Your task to perform on an android device: Search for flights from Boston to Zurich Image 0: 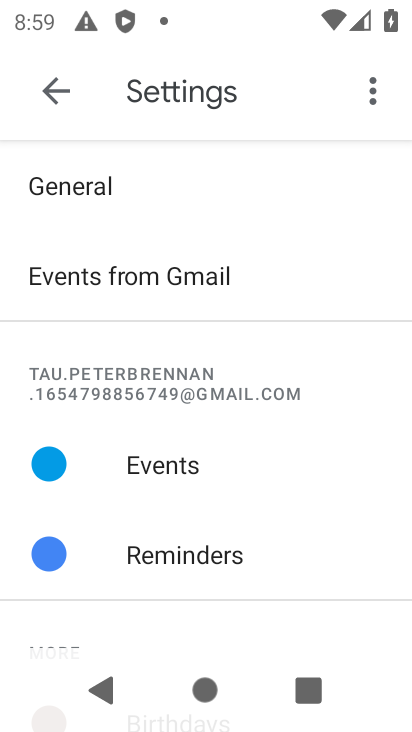
Step 0: press home button
Your task to perform on an android device: Search for flights from Boston to Zurich Image 1: 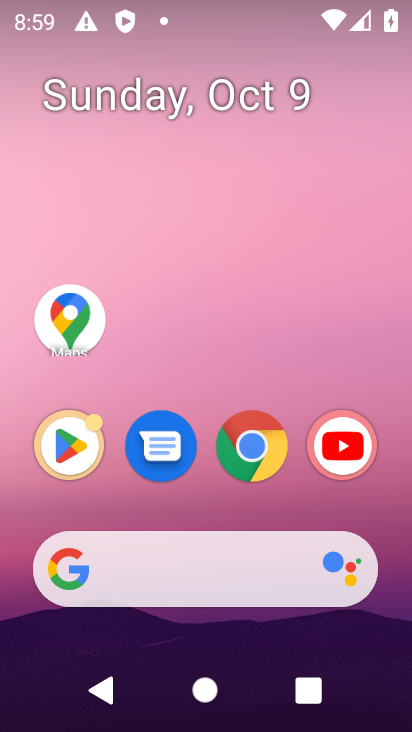
Step 1: click (253, 444)
Your task to perform on an android device: Search for flights from Boston to Zurich Image 2: 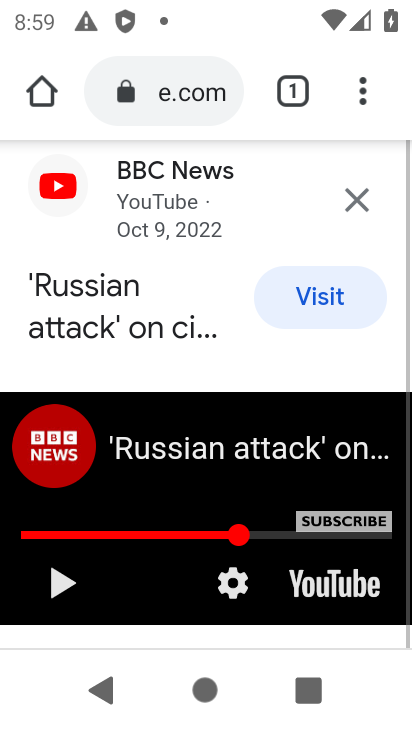
Step 2: click (185, 98)
Your task to perform on an android device: Search for flights from Boston to Zurich Image 3: 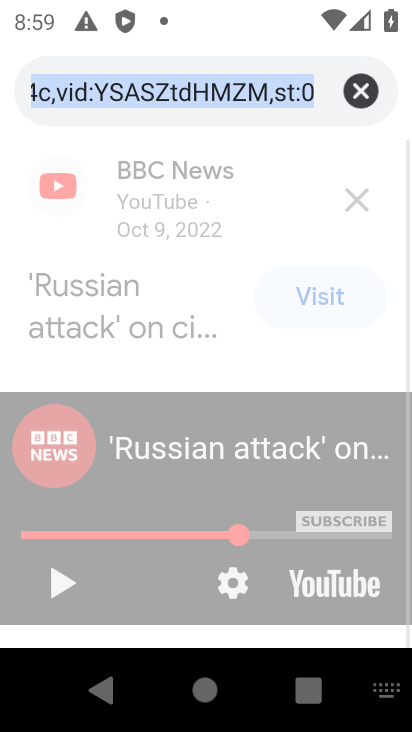
Step 3: type "flights from Boston to Zurich"
Your task to perform on an android device: Search for flights from Boston to Zurich Image 4: 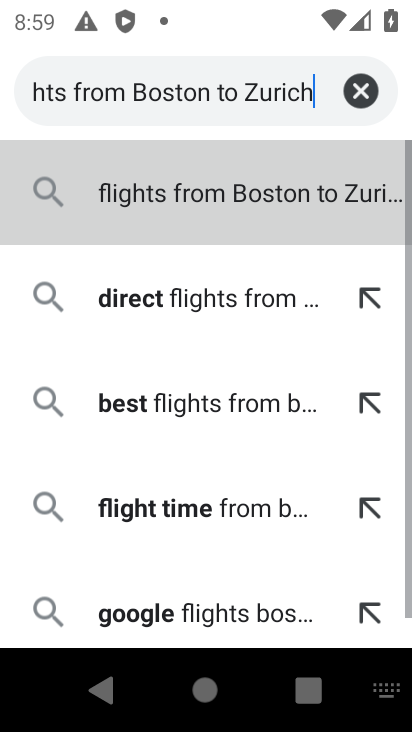
Step 4: type ""
Your task to perform on an android device: Search for flights from Boston to Zurich Image 5: 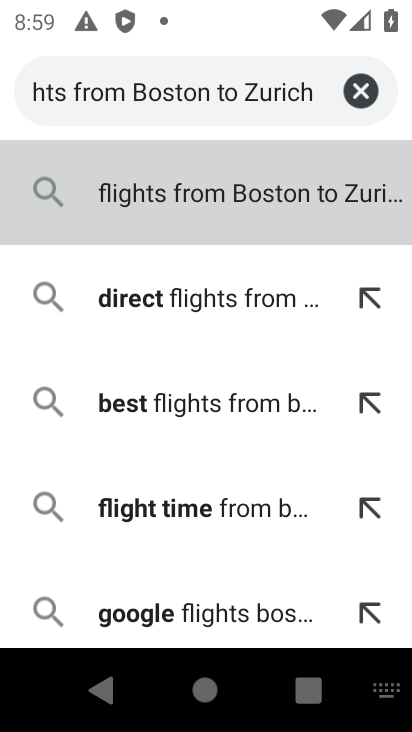
Step 5: press enter
Your task to perform on an android device: Search for flights from Boston to Zurich Image 6: 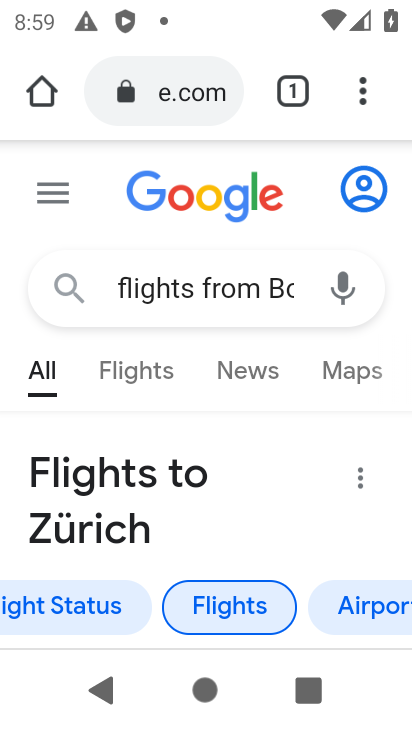
Step 6: drag from (332, 500) to (273, 198)
Your task to perform on an android device: Search for flights from Boston to Zurich Image 7: 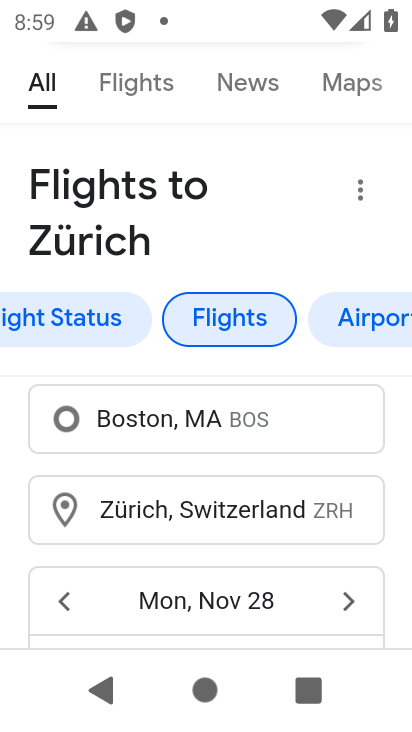
Step 7: drag from (362, 552) to (296, 227)
Your task to perform on an android device: Search for flights from Boston to Zurich Image 8: 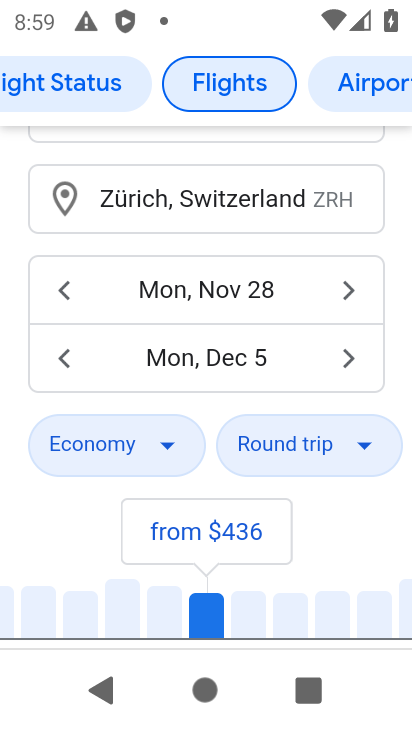
Step 8: drag from (347, 530) to (317, 73)
Your task to perform on an android device: Search for flights from Boston to Zurich Image 9: 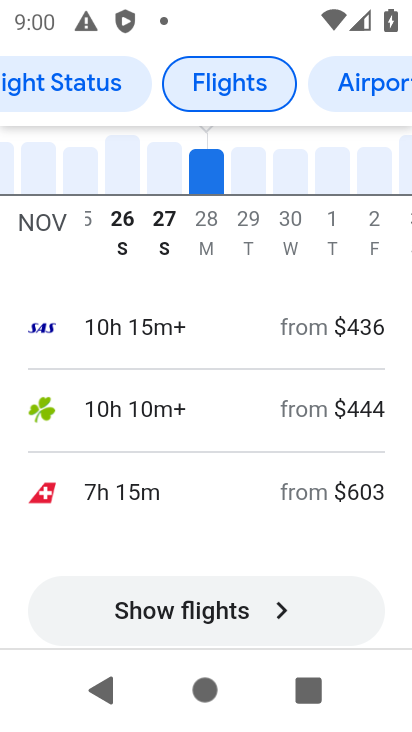
Step 9: click (204, 610)
Your task to perform on an android device: Search for flights from Boston to Zurich Image 10: 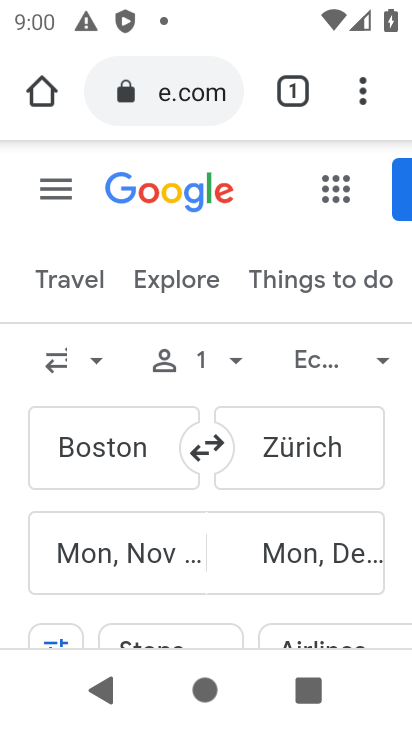
Step 10: task complete